Your task to perform on an android device: turn on priority inbox in the gmail app Image 0: 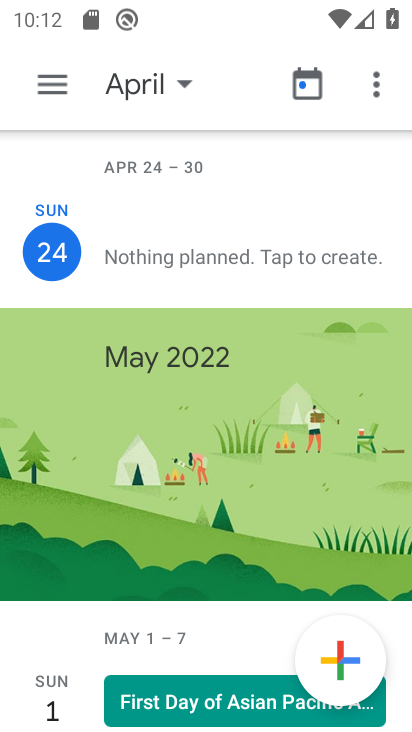
Step 0: press home button
Your task to perform on an android device: turn on priority inbox in the gmail app Image 1: 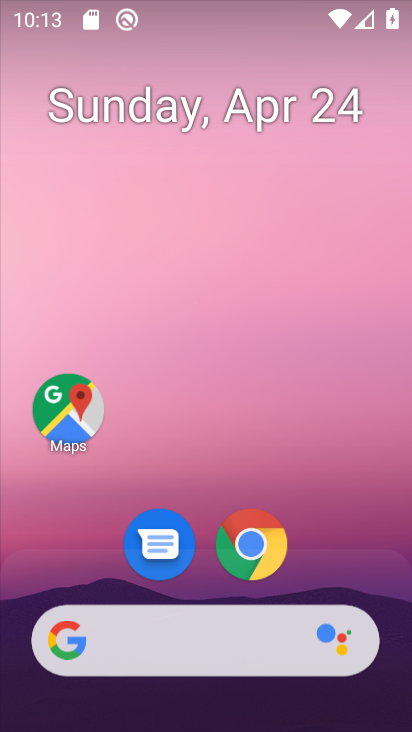
Step 1: drag from (349, 349) to (363, 196)
Your task to perform on an android device: turn on priority inbox in the gmail app Image 2: 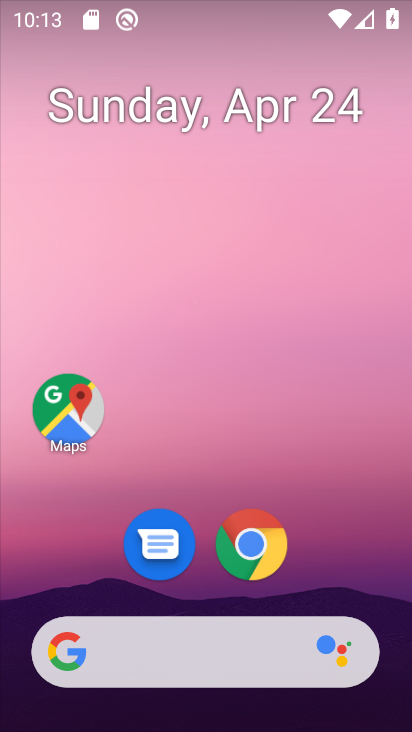
Step 2: drag from (347, 468) to (347, 173)
Your task to perform on an android device: turn on priority inbox in the gmail app Image 3: 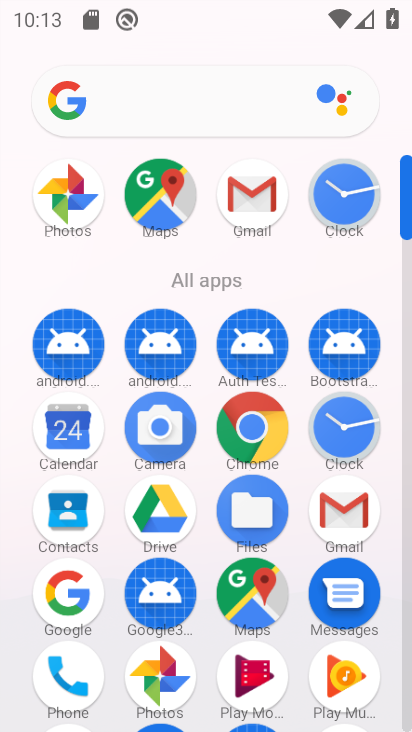
Step 3: click (347, 505)
Your task to perform on an android device: turn on priority inbox in the gmail app Image 4: 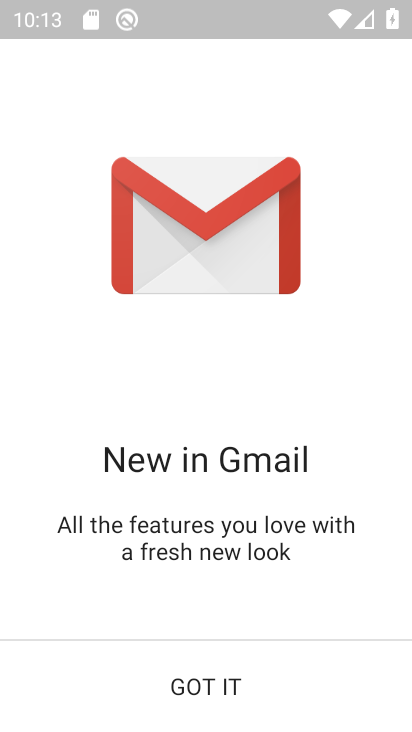
Step 4: click (227, 698)
Your task to perform on an android device: turn on priority inbox in the gmail app Image 5: 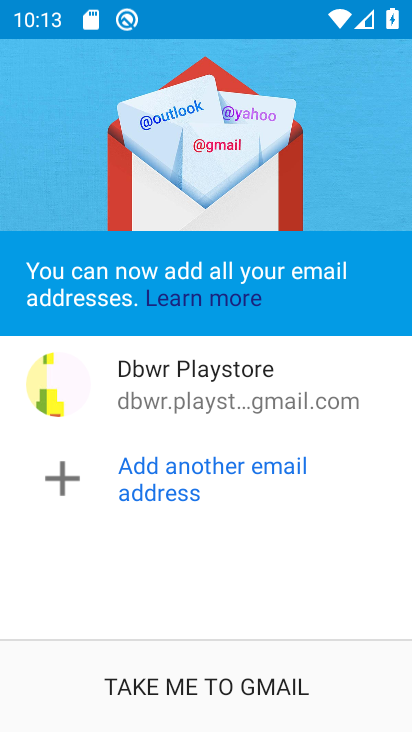
Step 5: click (242, 690)
Your task to perform on an android device: turn on priority inbox in the gmail app Image 6: 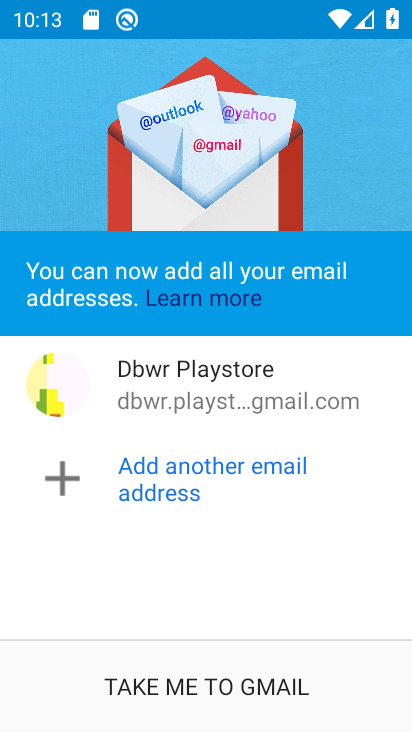
Step 6: click (228, 671)
Your task to perform on an android device: turn on priority inbox in the gmail app Image 7: 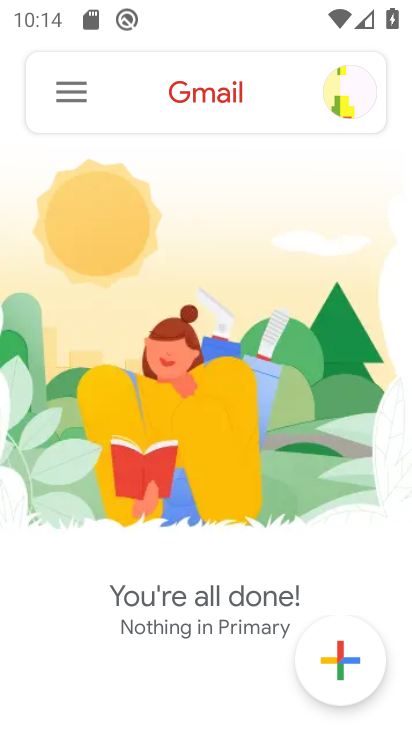
Step 7: click (67, 90)
Your task to perform on an android device: turn on priority inbox in the gmail app Image 8: 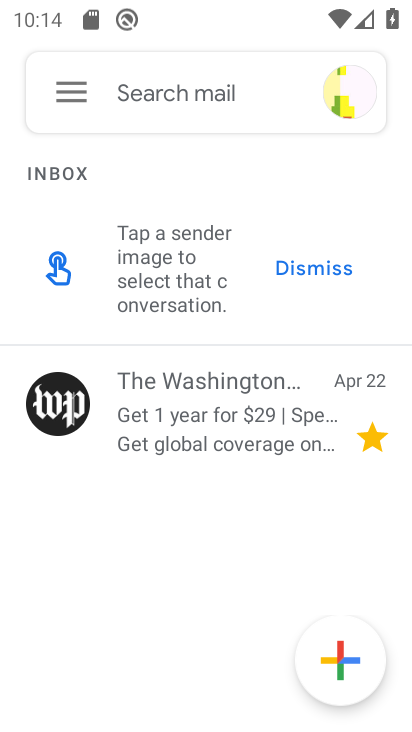
Step 8: click (72, 97)
Your task to perform on an android device: turn on priority inbox in the gmail app Image 9: 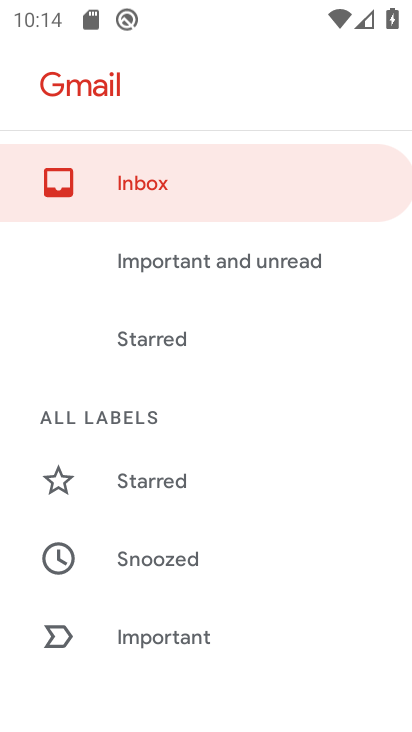
Step 9: drag from (282, 603) to (335, 126)
Your task to perform on an android device: turn on priority inbox in the gmail app Image 10: 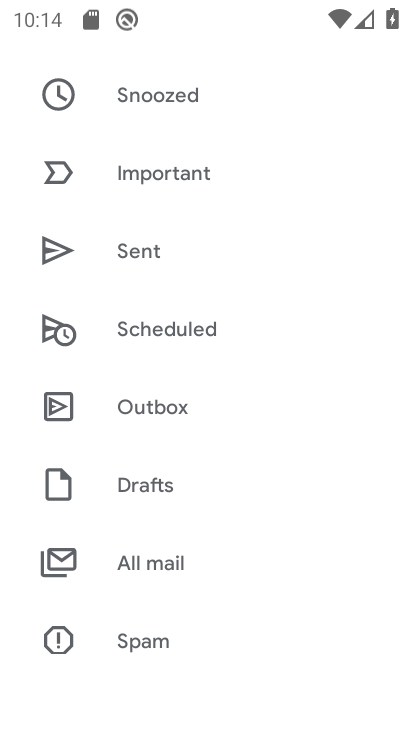
Step 10: drag from (260, 628) to (276, 149)
Your task to perform on an android device: turn on priority inbox in the gmail app Image 11: 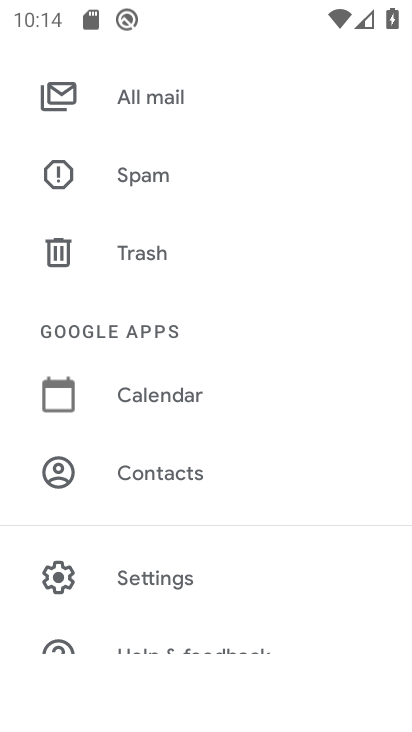
Step 11: click (177, 578)
Your task to perform on an android device: turn on priority inbox in the gmail app Image 12: 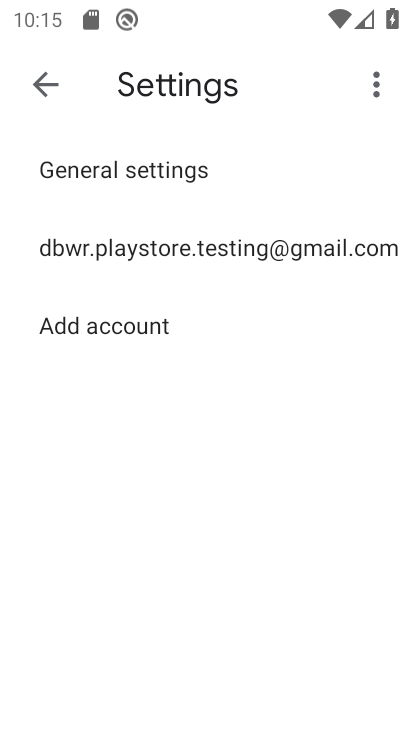
Step 12: click (228, 250)
Your task to perform on an android device: turn on priority inbox in the gmail app Image 13: 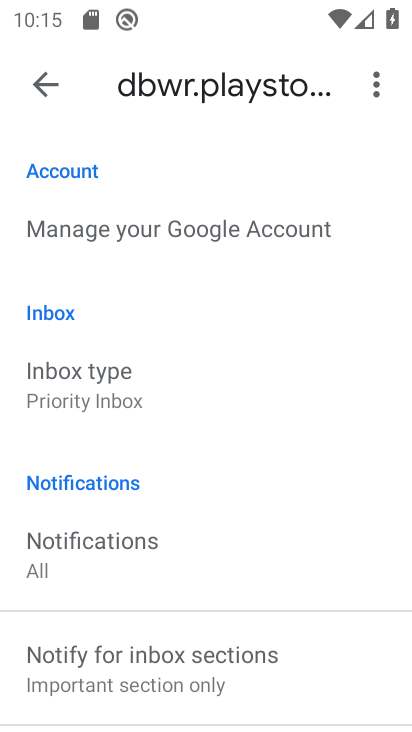
Step 13: click (138, 387)
Your task to perform on an android device: turn on priority inbox in the gmail app Image 14: 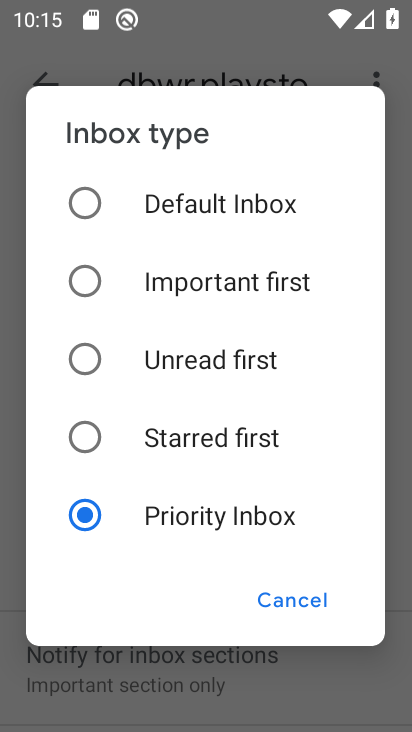
Step 14: task complete